Your task to perform on an android device: Open calendar and show me the third week of next month Image 0: 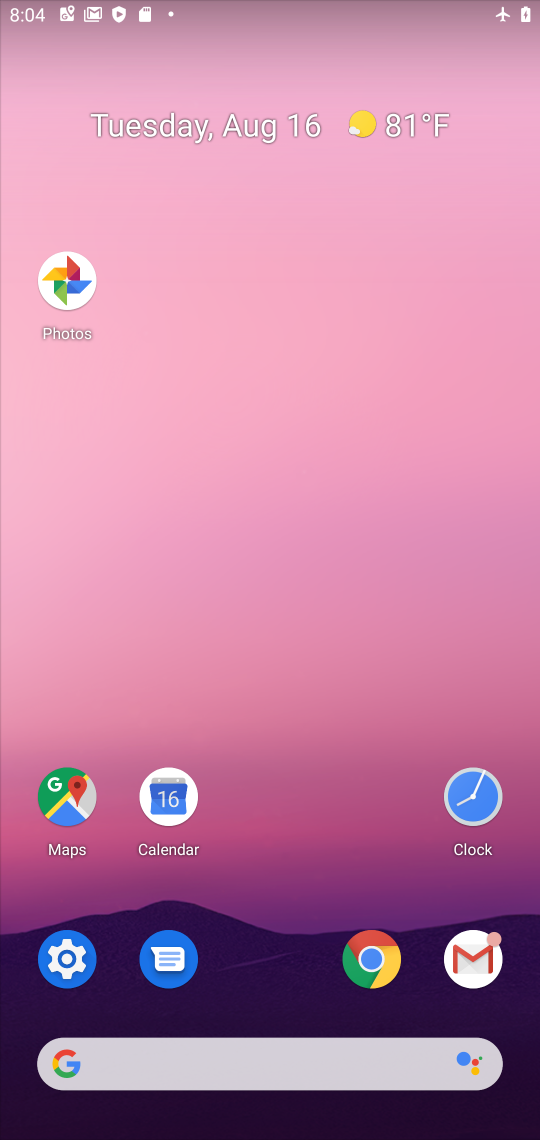
Step 0: click (170, 799)
Your task to perform on an android device: Open calendar and show me the third week of next month Image 1: 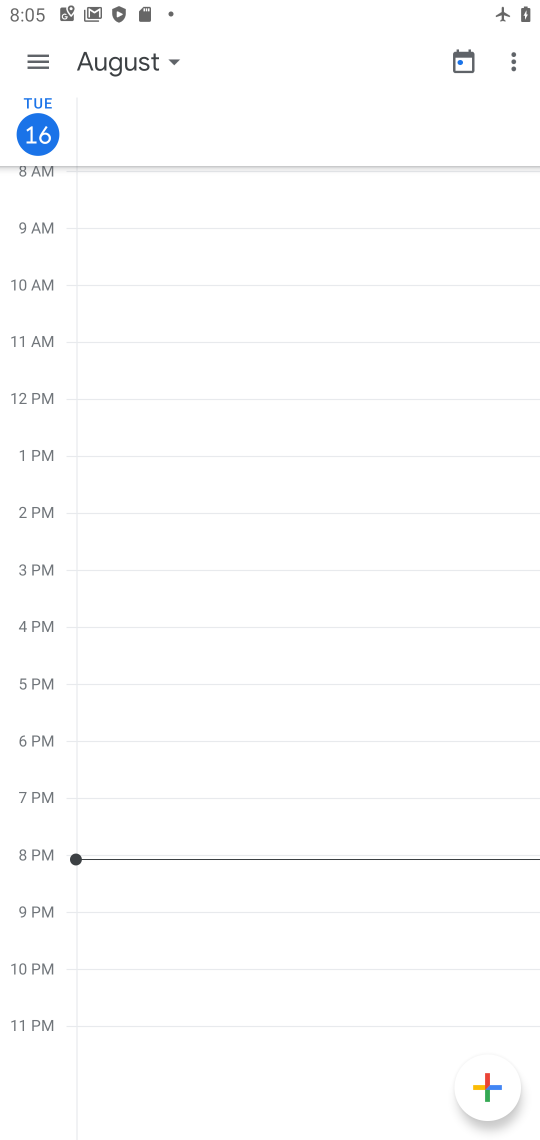
Step 1: click (31, 60)
Your task to perform on an android device: Open calendar and show me the third week of next month Image 2: 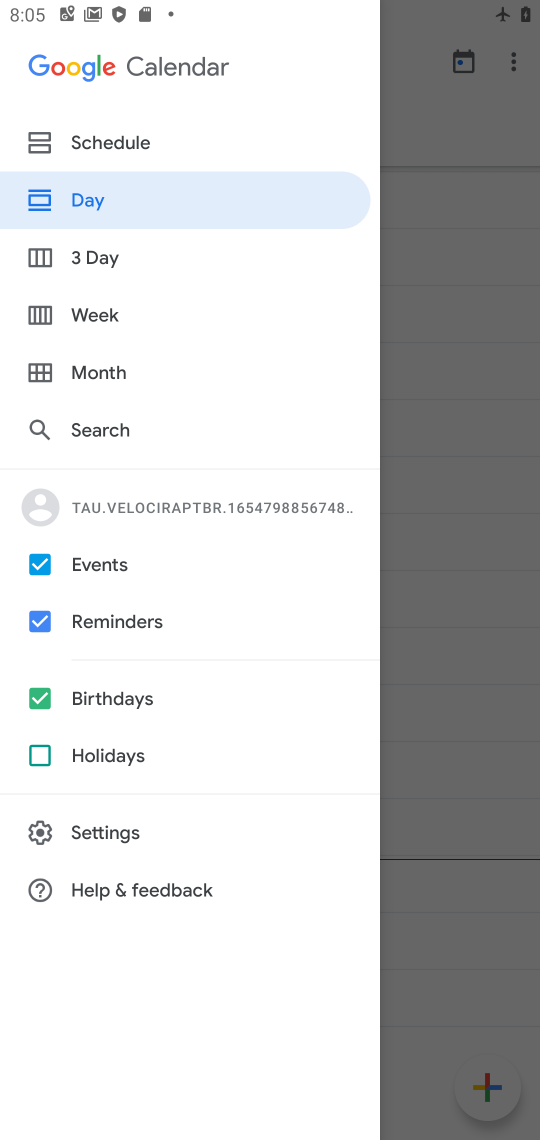
Step 2: click (99, 312)
Your task to perform on an android device: Open calendar and show me the third week of next month Image 3: 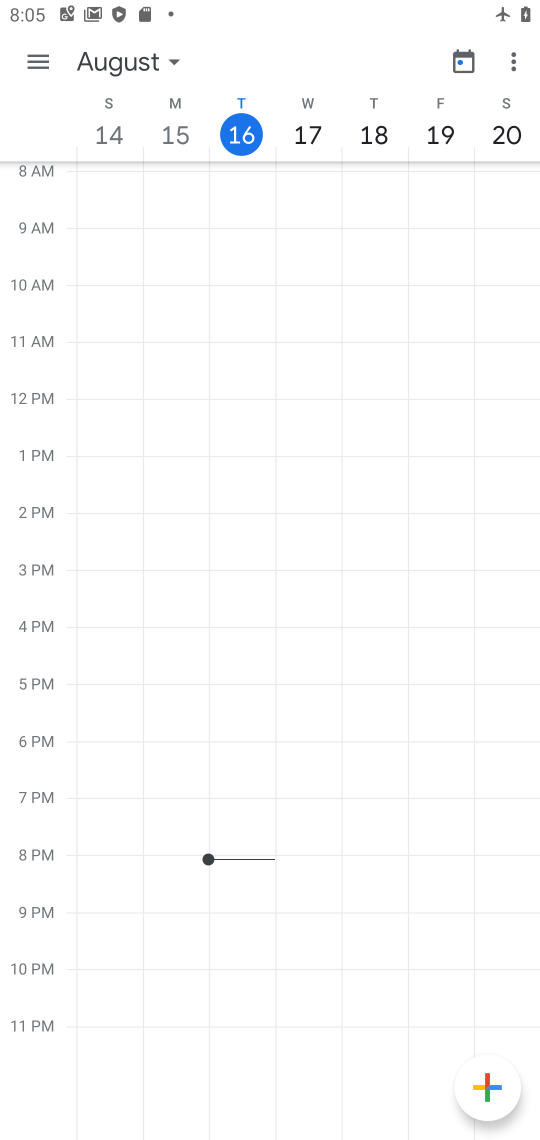
Step 3: click (166, 57)
Your task to perform on an android device: Open calendar and show me the third week of next month Image 4: 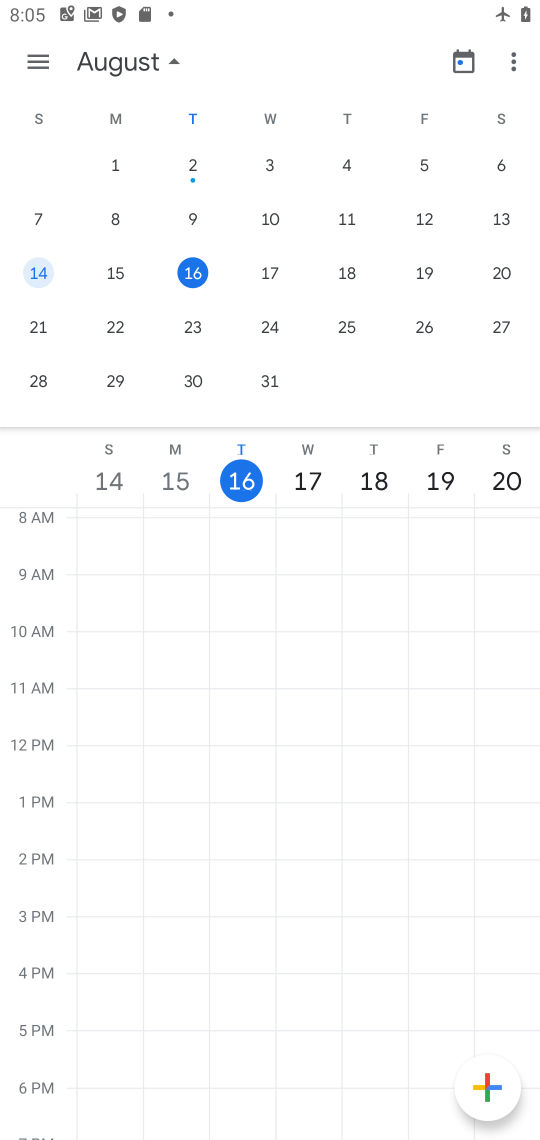
Step 4: drag from (498, 233) to (107, 196)
Your task to perform on an android device: Open calendar and show me the third week of next month Image 5: 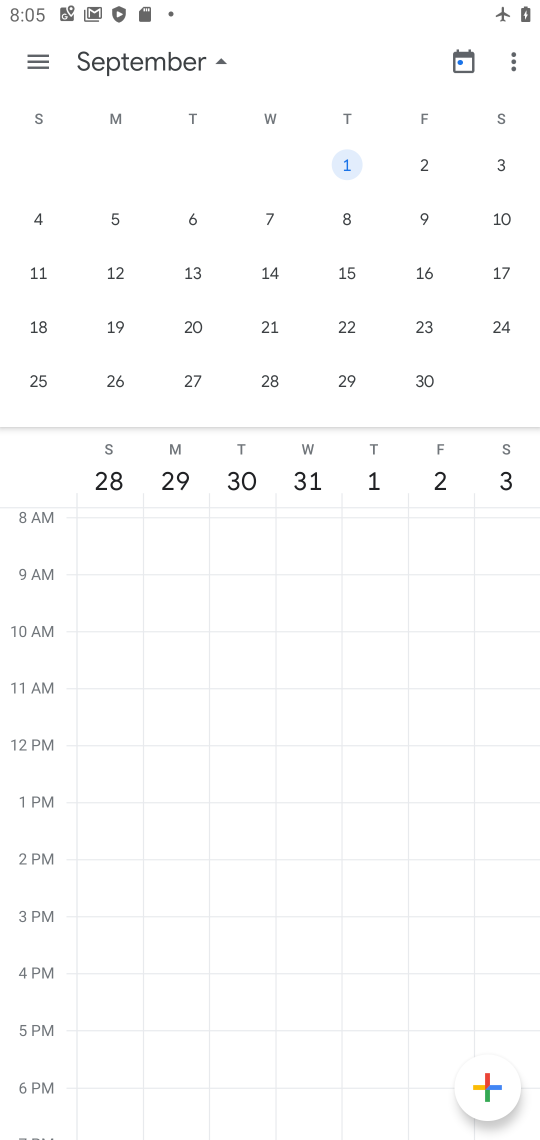
Step 5: click (268, 270)
Your task to perform on an android device: Open calendar and show me the third week of next month Image 6: 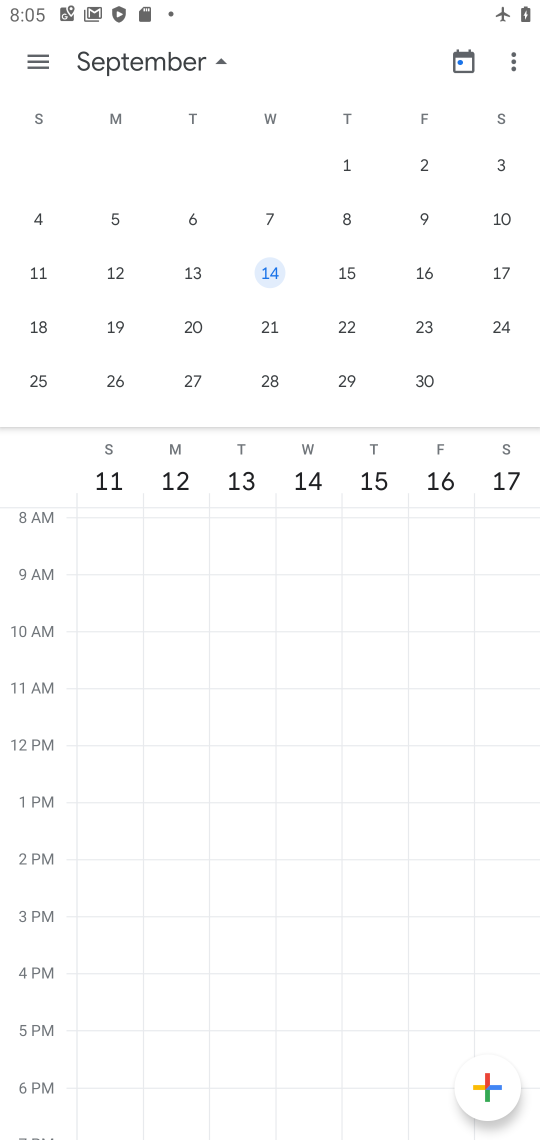
Step 6: task complete